Your task to perform on an android device: Open notification settings Image 0: 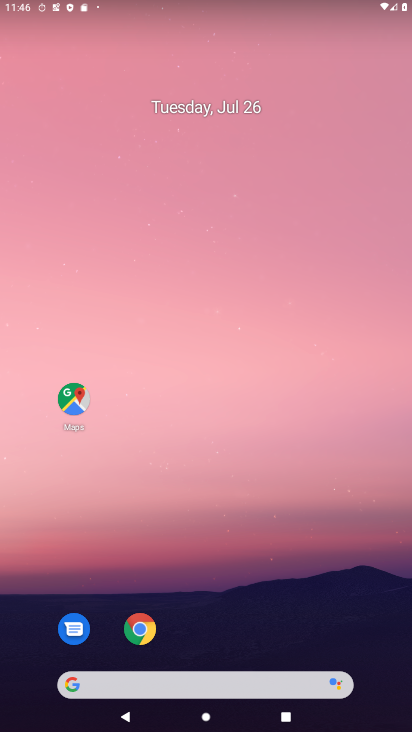
Step 0: drag from (369, 644) to (188, 145)
Your task to perform on an android device: Open notification settings Image 1: 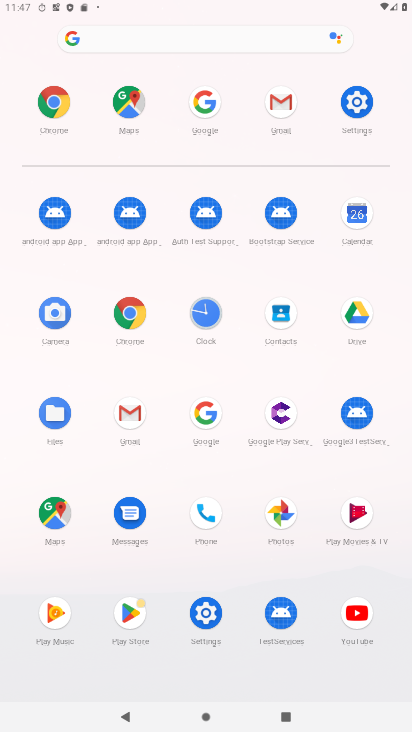
Step 1: click (203, 612)
Your task to perform on an android device: Open notification settings Image 2: 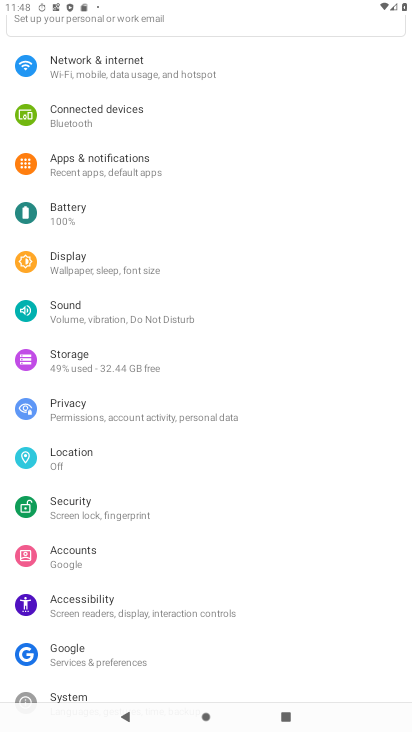
Step 2: click (122, 171)
Your task to perform on an android device: Open notification settings Image 3: 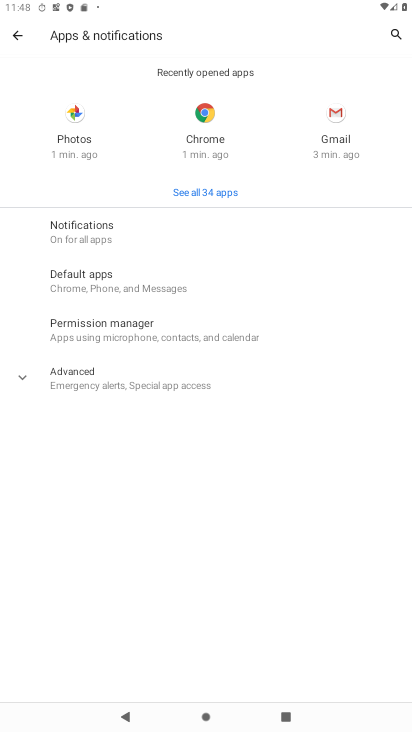
Step 3: click (86, 244)
Your task to perform on an android device: Open notification settings Image 4: 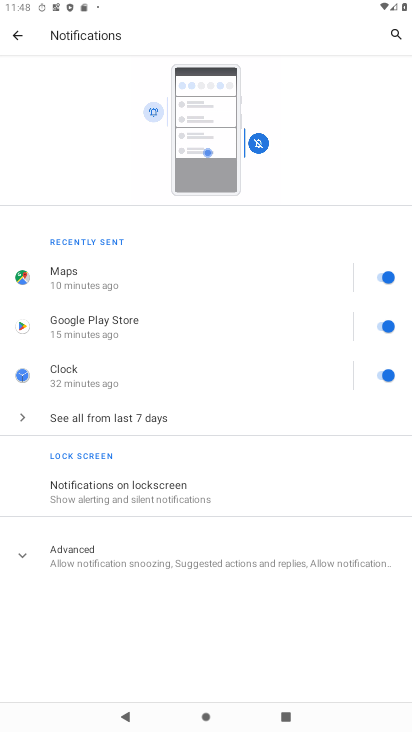
Step 4: task complete